Your task to perform on an android device: Open the Play Movies app and select the watchlist tab. Image 0: 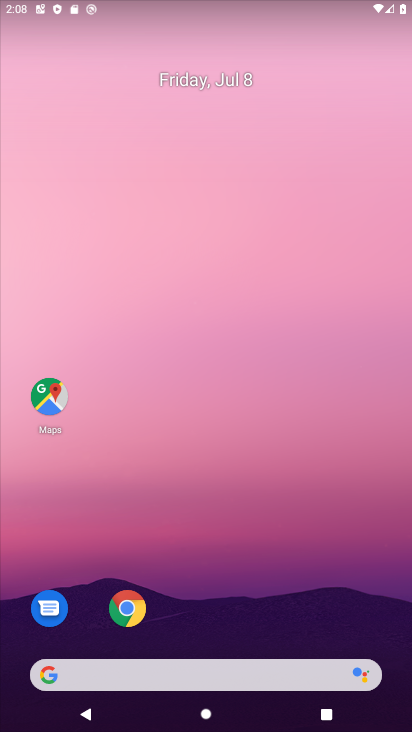
Step 0: drag from (213, 679) to (259, 85)
Your task to perform on an android device: Open the Play Movies app and select the watchlist tab. Image 1: 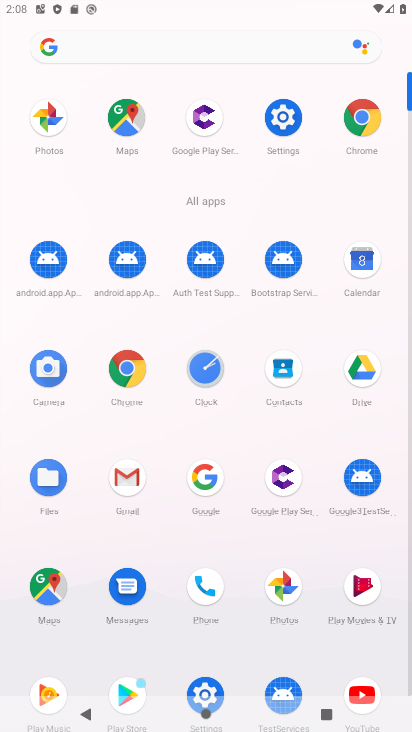
Step 1: click (370, 592)
Your task to perform on an android device: Open the Play Movies app and select the watchlist tab. Image 2: 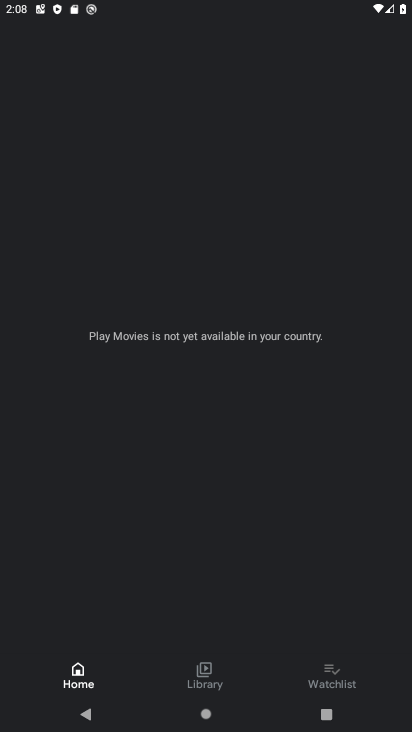
Step 2: click (342, 676)
Your task to perform on an android device: Open the Play Movies app and select the watchlist tab. Image 3: 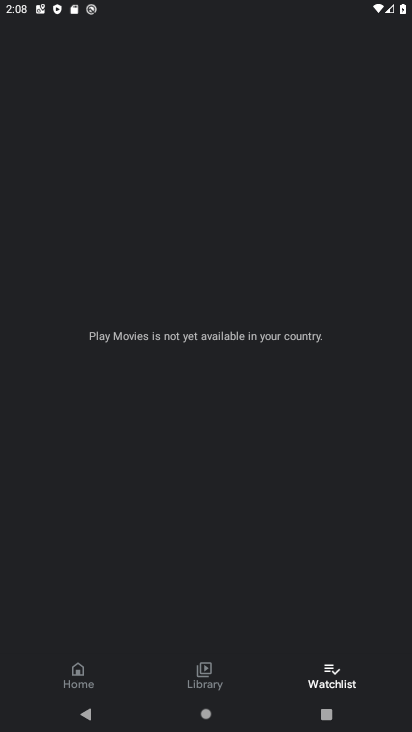
Step 3: task complete